Your task to perform on an android device: Go to Yahoo.com Image 0: 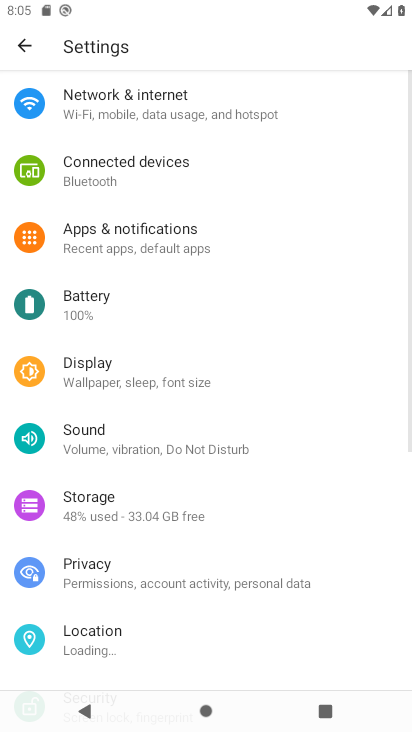
Step 0: press home button
Your task to perform on an android device: Go to Yahoo.com Image 1: 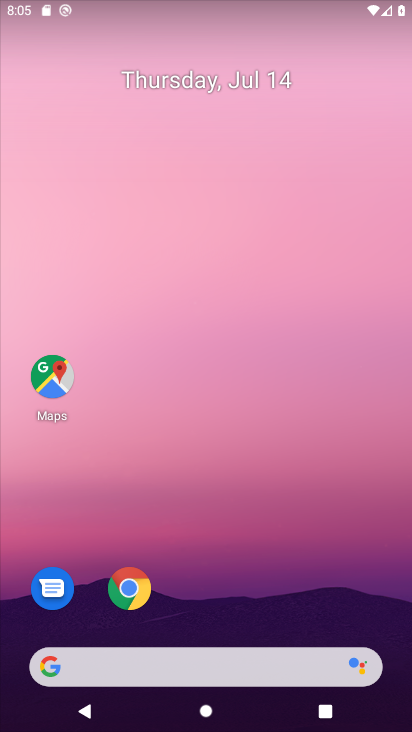
Step 1: drag from (351, 584) to (381, 40)
Your task to perform on an android device: Go to Yahoo.com Image 2: 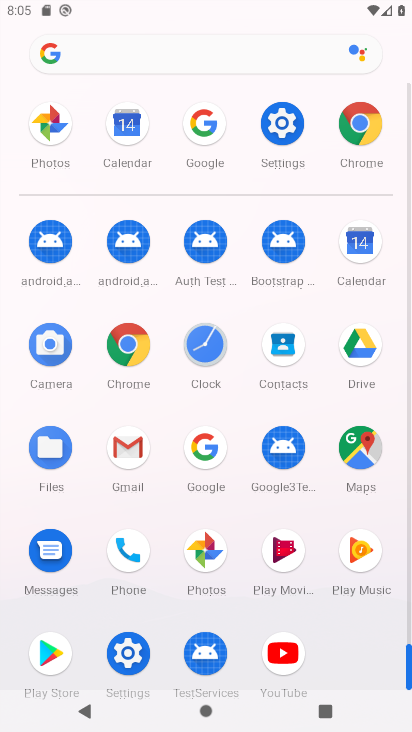
Step 2: click (359, 131)
Your task to perform on an android device: Go to Yahoo.com Image 3: 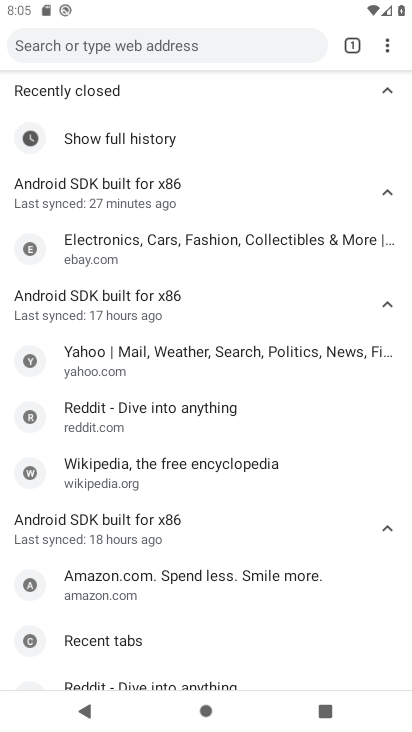
Step 3: click (257, 43)
Your task to perform on an android device: Go to Yahoo.com Image 4: 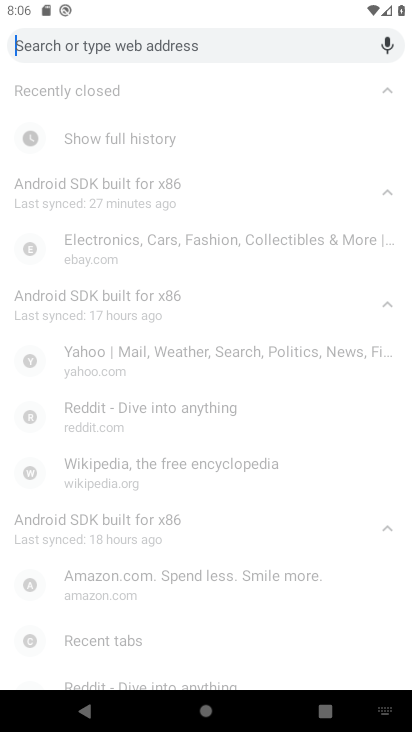
Step 4: type "yahoo.com"
Your task to perform on an android device: Go to Yahoo.com Image 5: 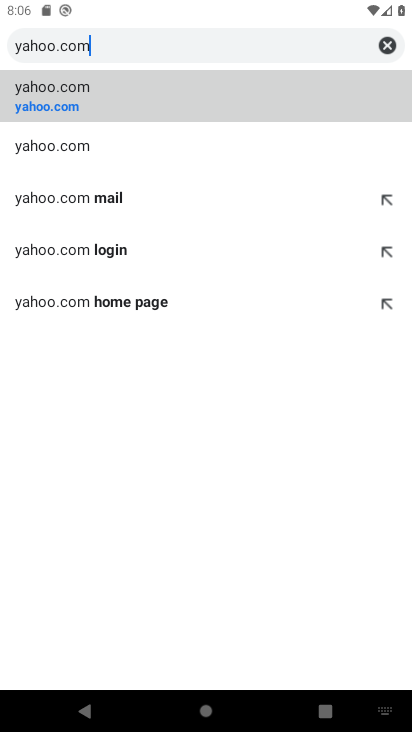
Step 5: click (84, 102)
Your task to perform on an android device: Go to Yahoo.com Image 6: 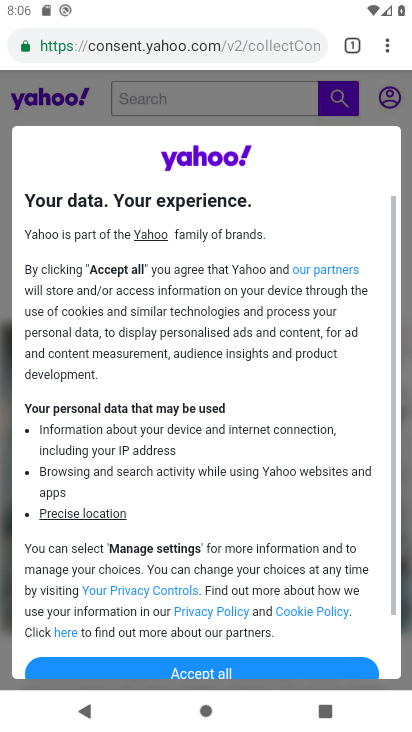
Step 6: task complete